Your task to perform on an android device: open app "The Home Depot" (install if not already installed), go to login, and select forgot password Image 0: 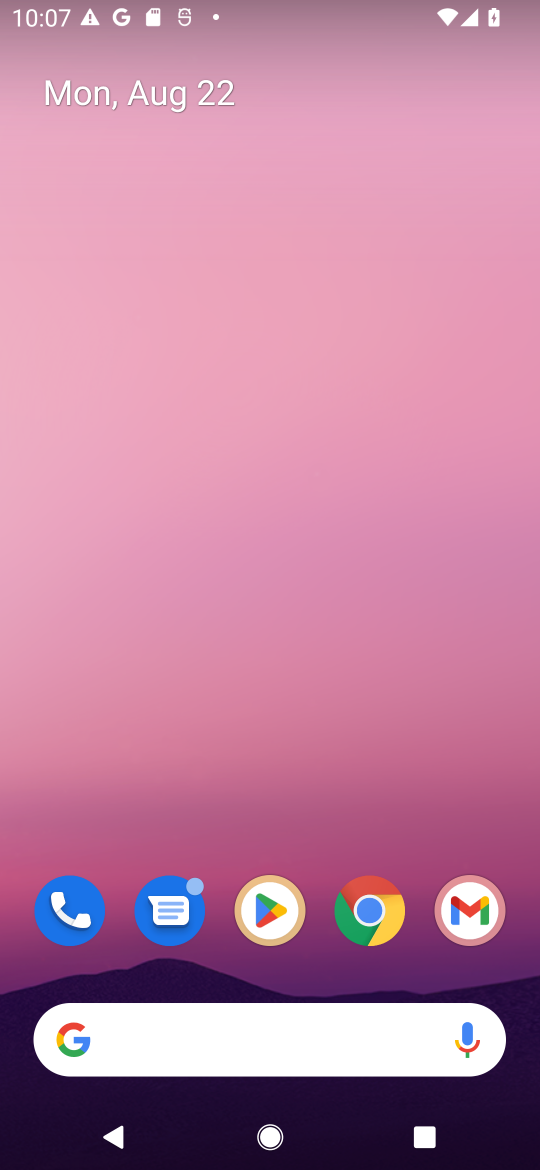
Step 0: click (258, 888)
Your task to perform on an android device: open app "The Home Depot" (install if not already installed), go to login, and select forgot password Image 1: 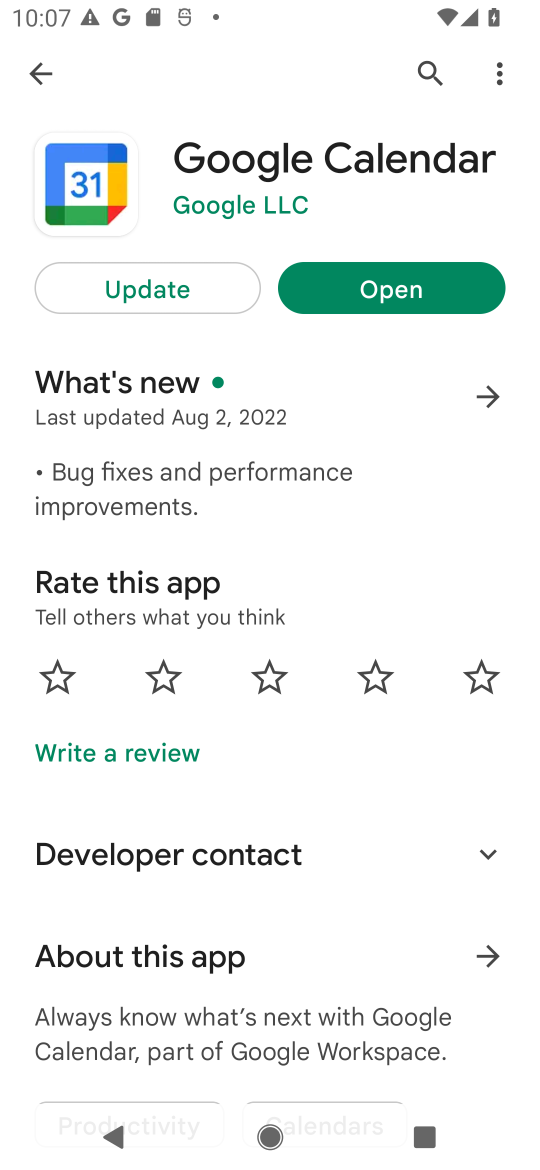
Step 1: click (426, 67)
Your task to perform on an android device: open app "The Home Depot" (install if not already installed), go to login, and select forgot password Image 2: 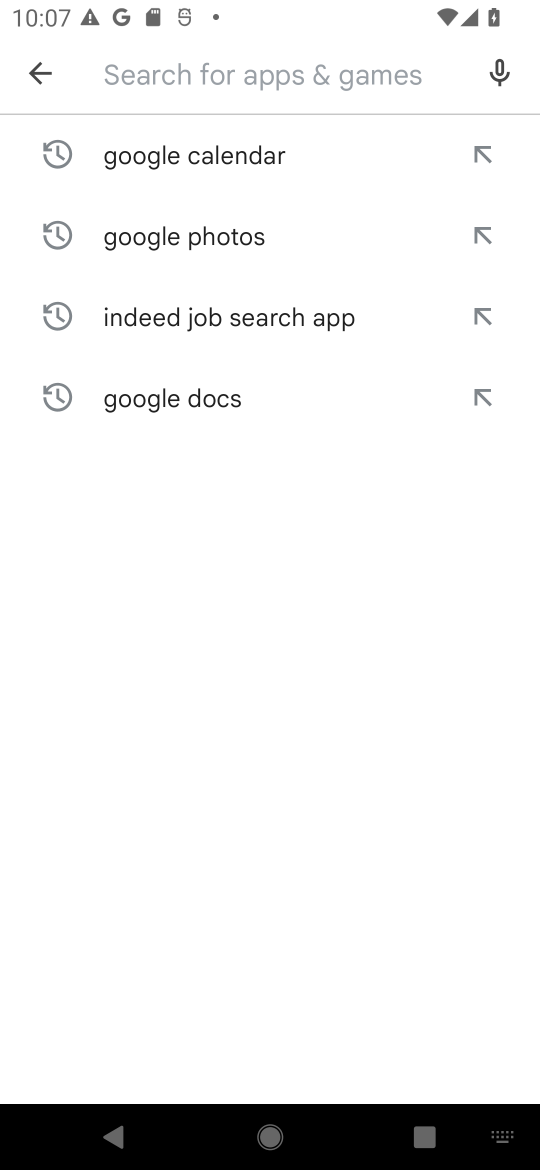
Step 2: type "The Home Depot"
Your task to perform on an android device: open app "The Home Depot" (install if not already installed), go to login, and select forgot password Image 3: 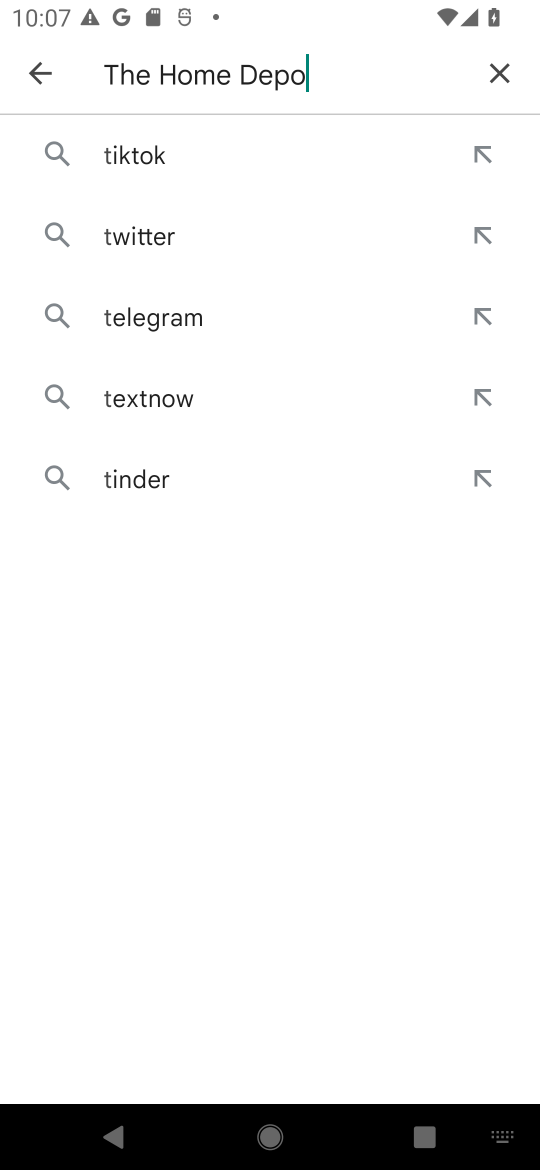
Step 3: type ""
Your task to perform on an android device: open app "The Home Depot" (install if not already installed), go to login, and select forgot password Image 4: 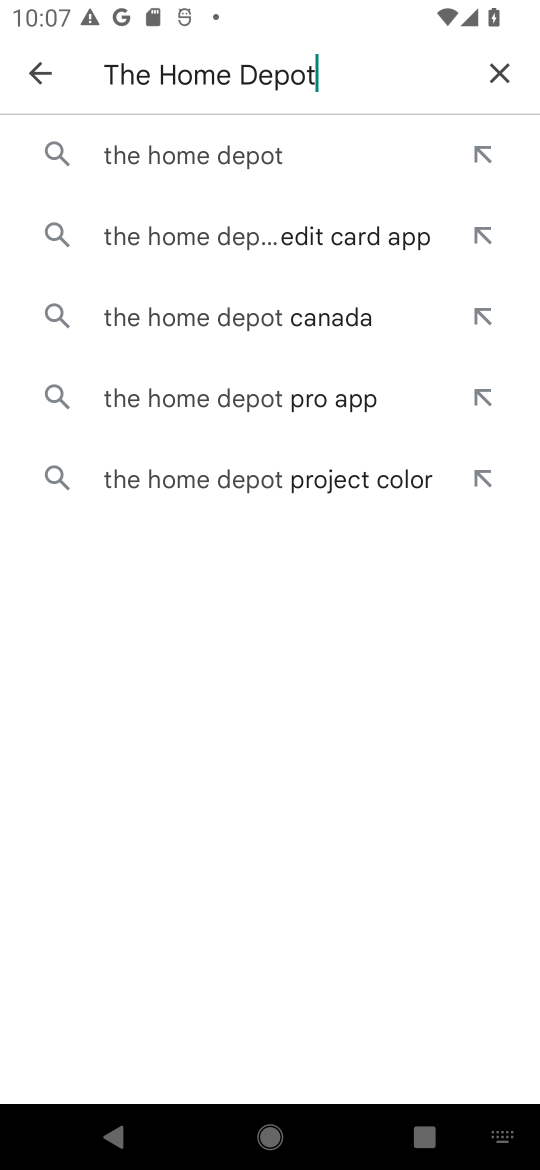
Step 4: click (243, 170)
Your task to perform on an android device: open app "The Home Depot" (install if not already installed), go to login, and select forgot password Image 5: 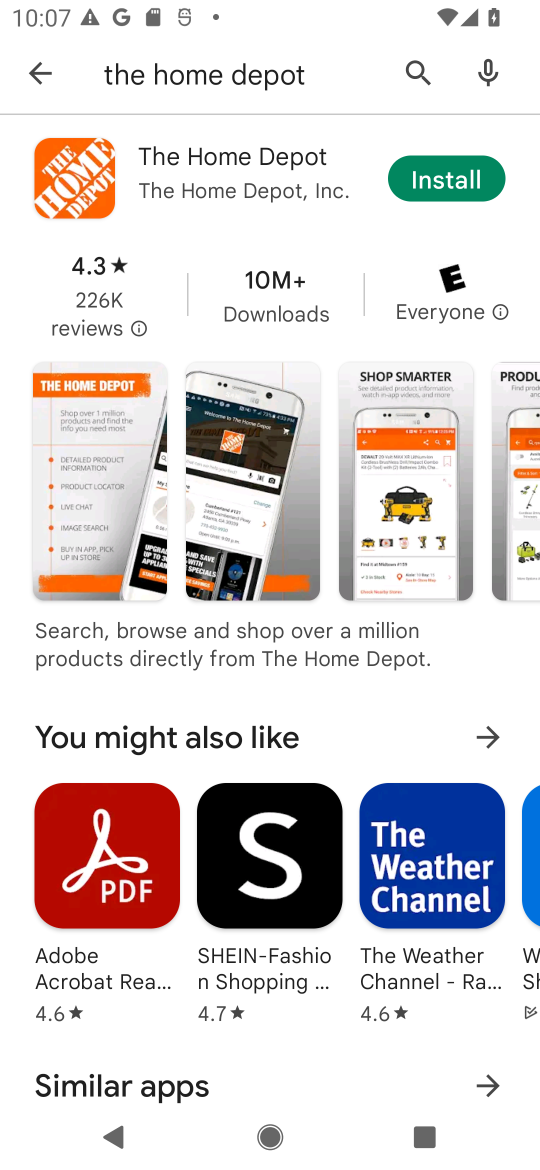
Step 5: click (443, 186)
Your task to perform on an android device: open app "The Home Depot" (install if not already installed), go to login, and select forgot password Image 6: 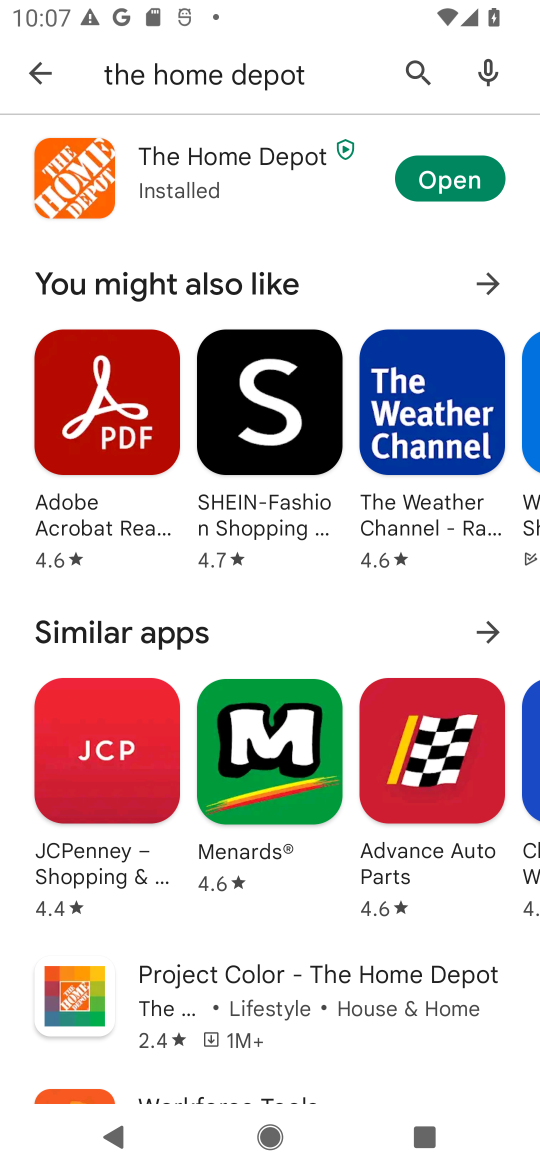
Step 6: click (437, 177)
Your task to perform on an android device: open app "The Home Depot" (install if not already installed), go to login, and select forgot password Image 7: 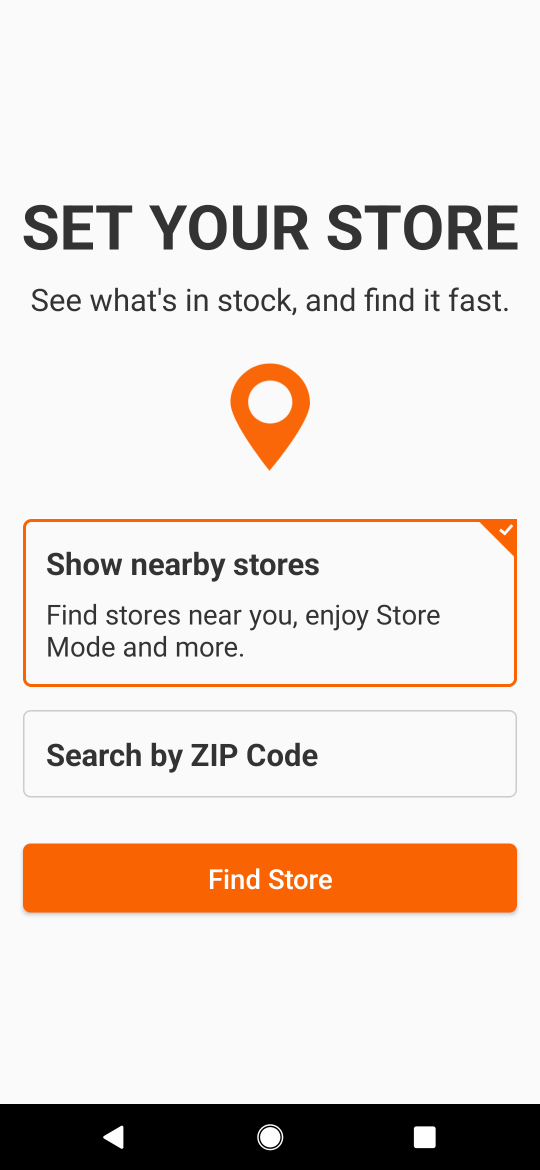
Step 7: task complete